Your task to perform on an android device: Open Chrome and go to settings Image 0: 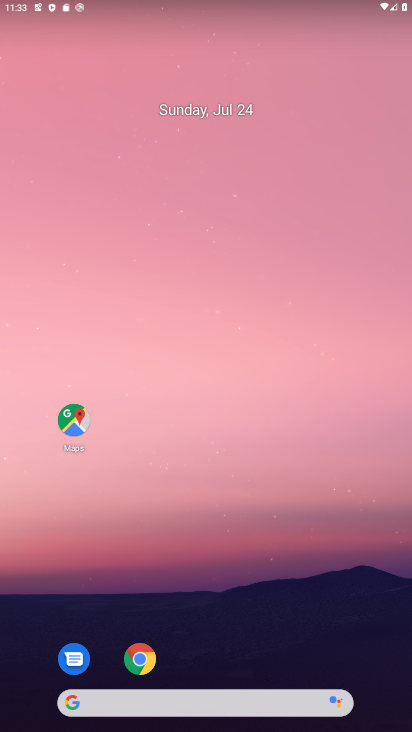
Step 0: drag from (46, 598) to (147, 292)
Your task to perform on an android device: Open Chrome and go to settings Image 1: 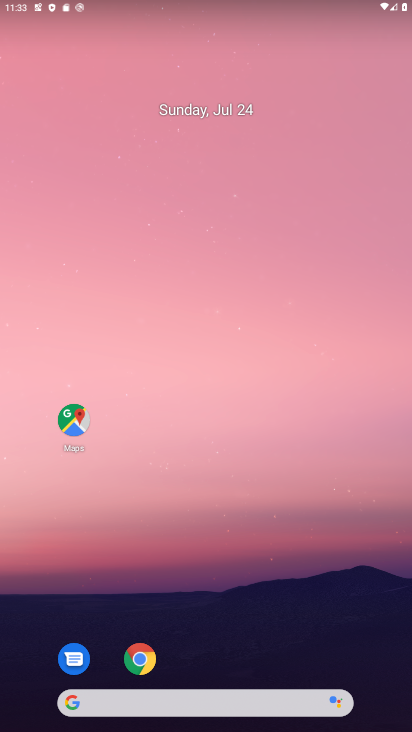
Step 1: click (128, 666)
Your task to perform on an android device: Open Chrome and go to settings Image 2: 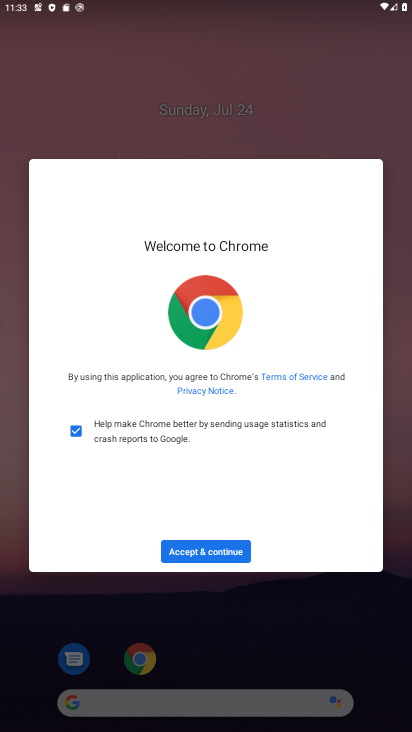
Step 2: click (206, 557)
Your task to perform on an android device: Open Chrome and go to settings Image 3: 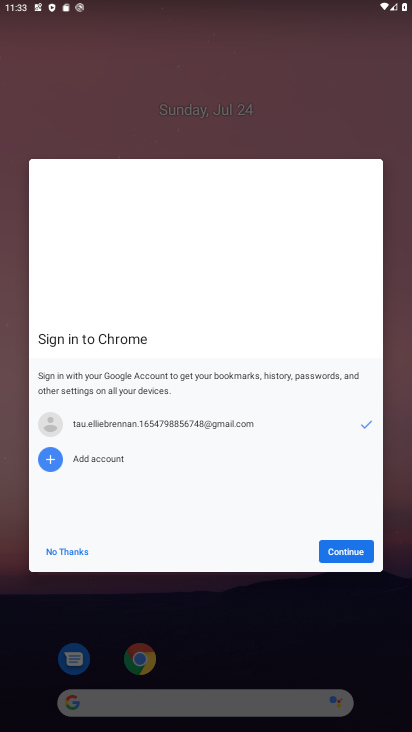
Step 3: click (360, 544)
Your task to perform on an android device: Open Chrome and go to settings Image 4: 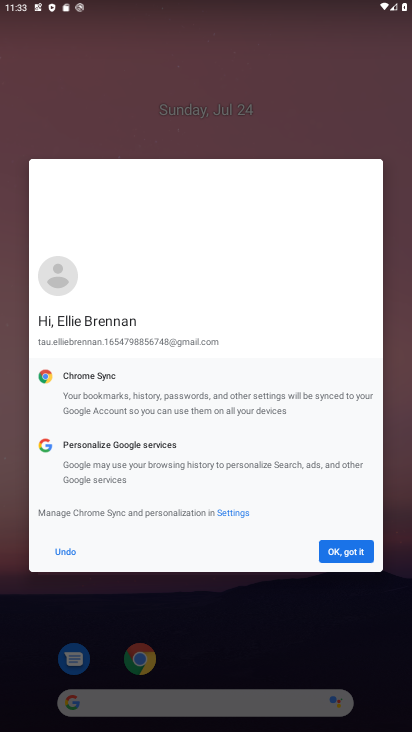
Step 4: click (359, 555)
Your task to perform on an android device: Open Chrome and go to settings Image 5: 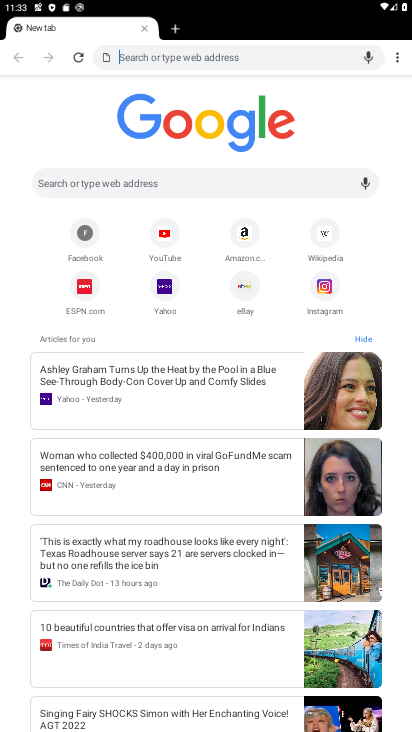
Step 5: click (400, 54)
Your task to perform on an android device: Open Chrome and go to settings Image 6: 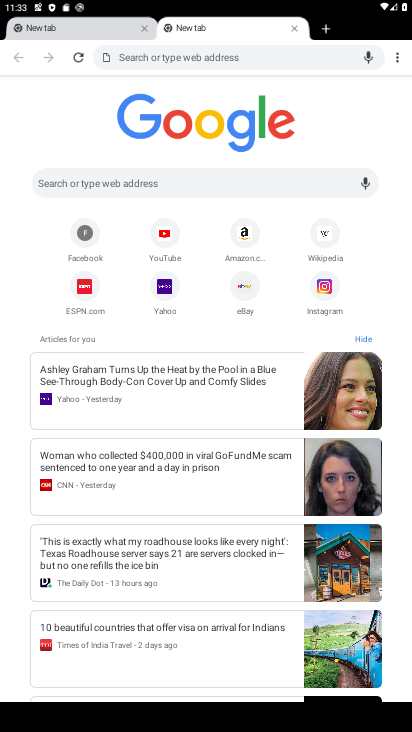
Step 6: click (395, 52)
Your task to perform on an android device: Open Chrome and go to settings Image 7: 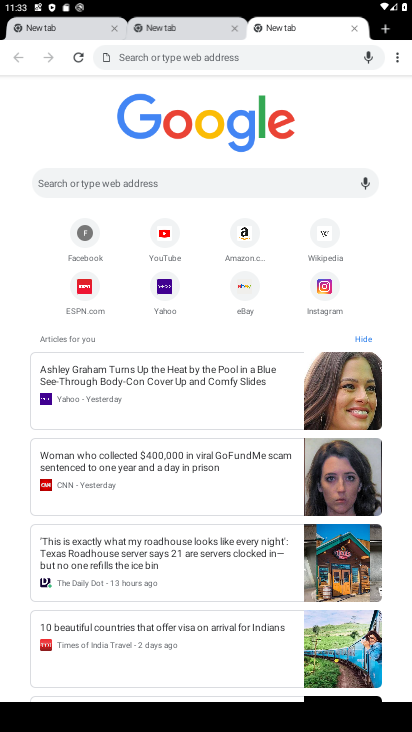
Step 7: click (397, 54)
Your task to perform on an android device: Open Chrome and go to settings Image 8: 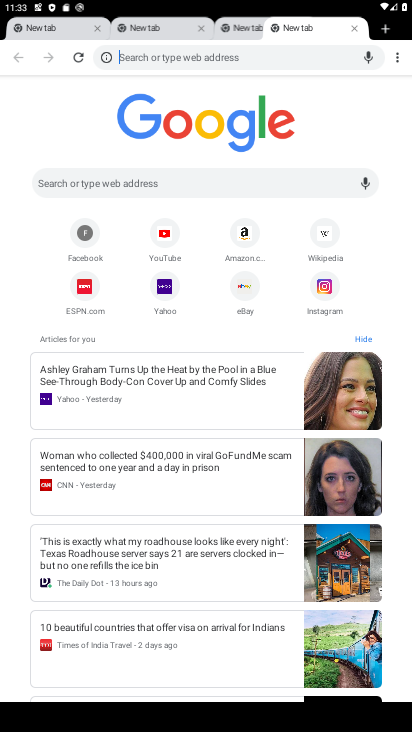
Step 8: click (393, 51)
Your task to perform on an android device: Open Chrome and go to settings Image 9: 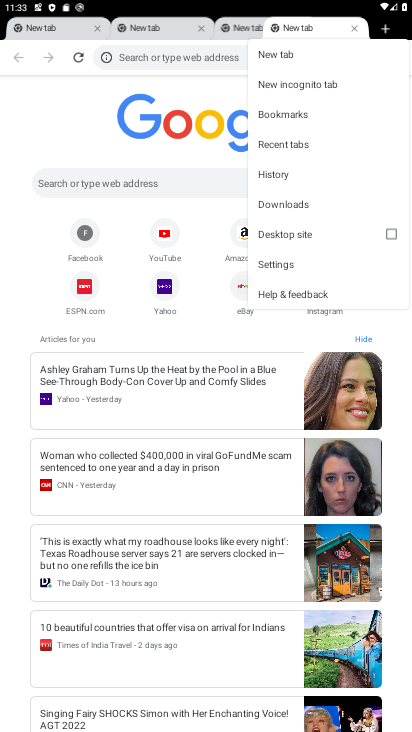
Step 9: click (262, 263)
Your task to perform on an android device: Open Chrome and go to settings Image 10: 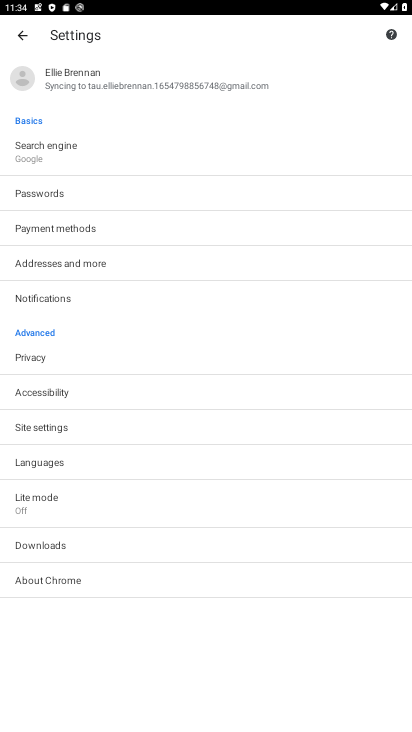
Step 10: task complete